Your task to perform on an android device: Open the phone app and click the voicemail tab. Image 0: 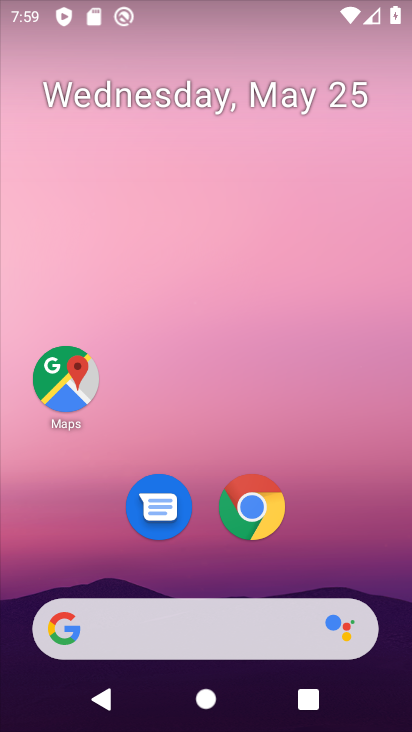
Step 0: drag from (232, 562) to (179, 131)
Your task to perform on an android device: Open the phone app and click the voicemail tab. Image 1: 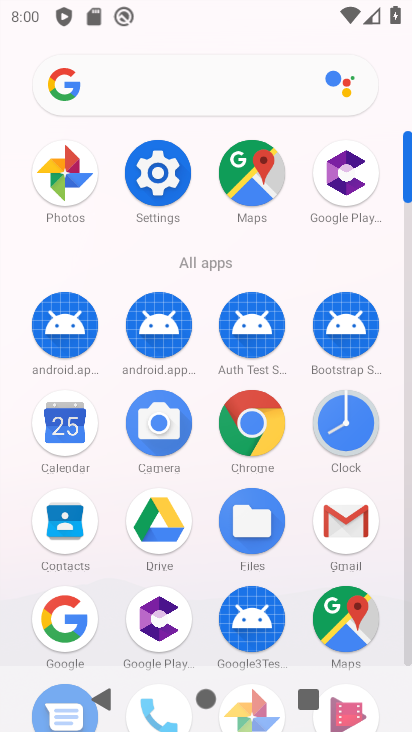
Step 1: drag from (113, 539) to (85, 163)
Your task to perform on an android device: Open the phone app and click the voicemail tab. Image 2: 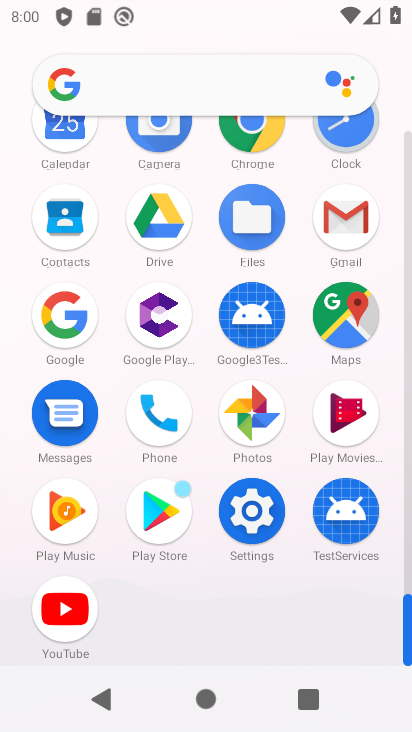
Step 2: click (148, 417)
Your task to perform on an android device: Open the phone app and click the voicemail tab. Image 3: 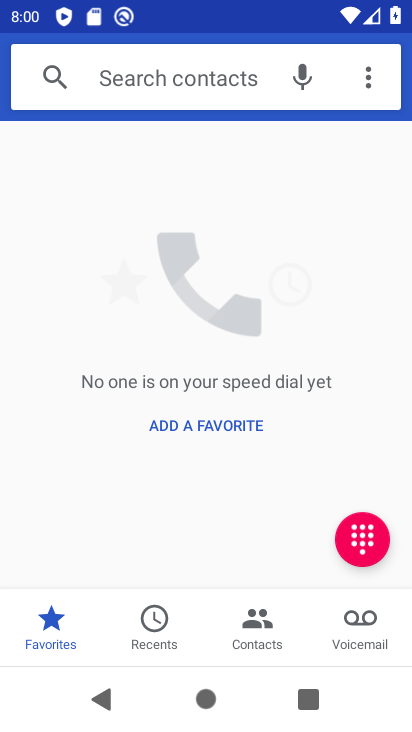
Step 3: click (369, 620)
Your task to perform on an android device: Open the phone app and click the voicemail tab. Image 4: 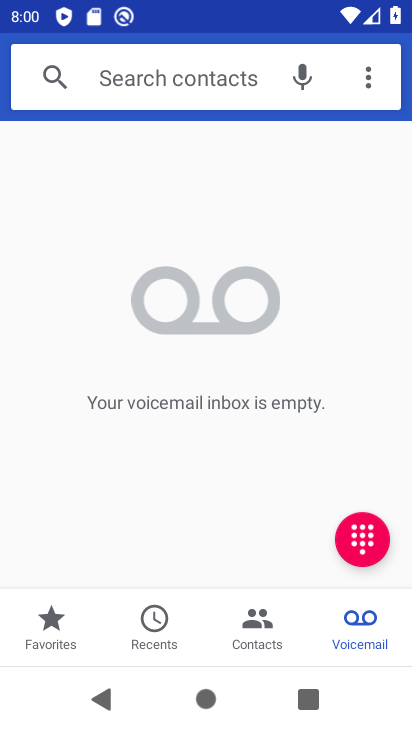
Step 4: task complete